Your task to perform on an android device: open app "Google Translate" Image 0: 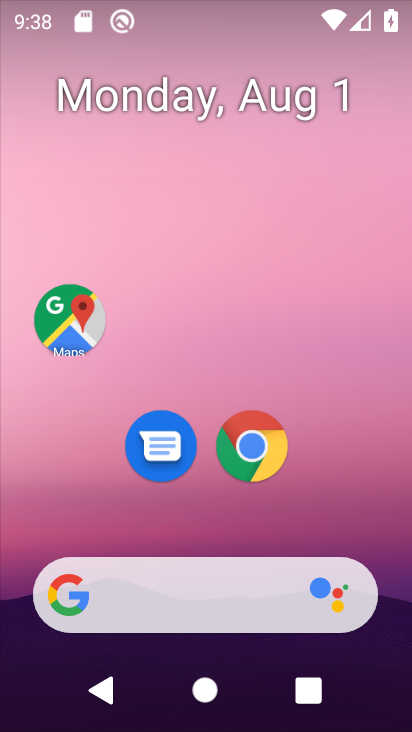
Step 0: drag from (193, 513) to (220, 70)
Your task to perform on an android device: open app "Google Translate" Image 1: 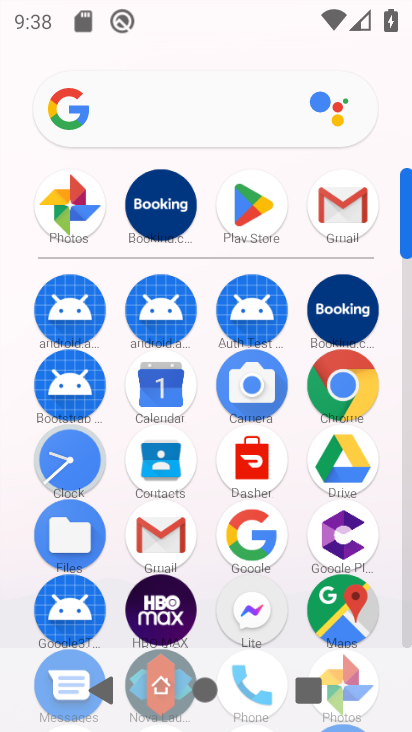
Step 1: click (252, 190)
Your task to perform on an android device: open app "Google Translate" Image 2: 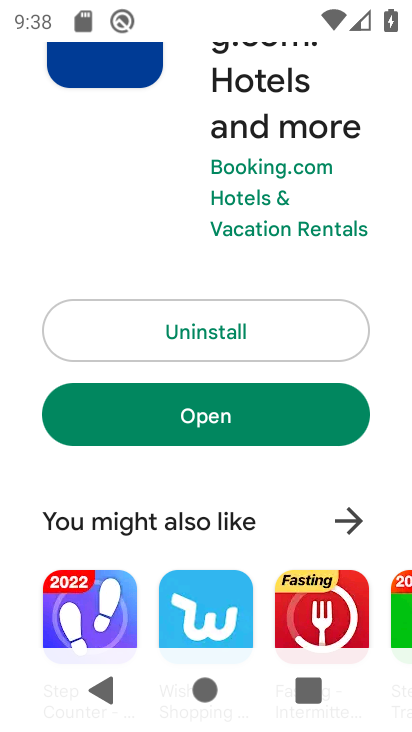
Step 2: drag from (292, 148) to (346, 604)
Your task to perform on an android device: open app "Google Translate" Image 3: 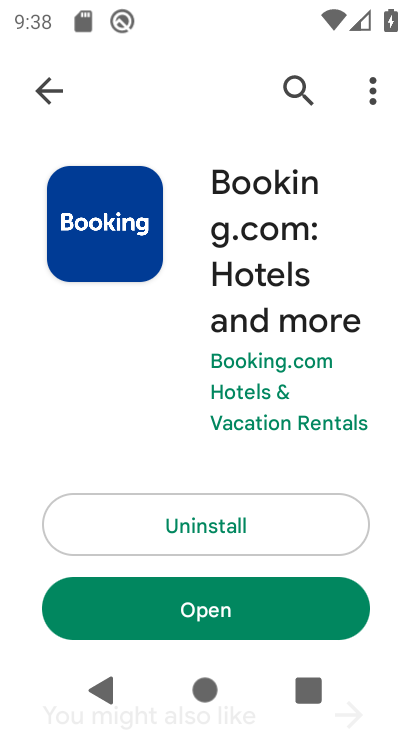
Step 3: click (289, 94)
Your task to perform on an android device: open app "Google Translate" Image 4: 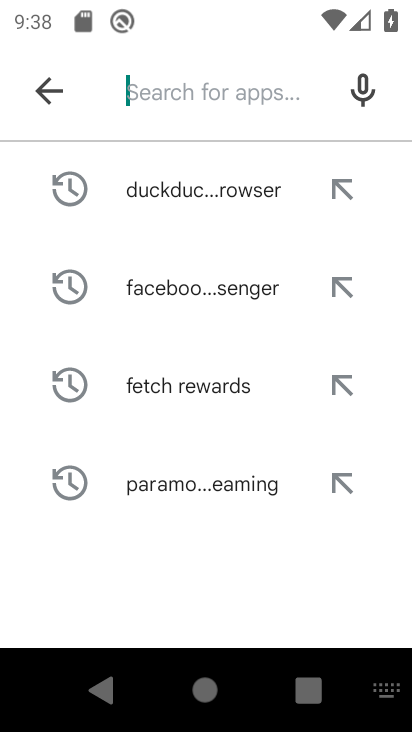
Step 4: type "Google Translate"
Your task to perform on an android device: open app "Google Translate" Image 5: 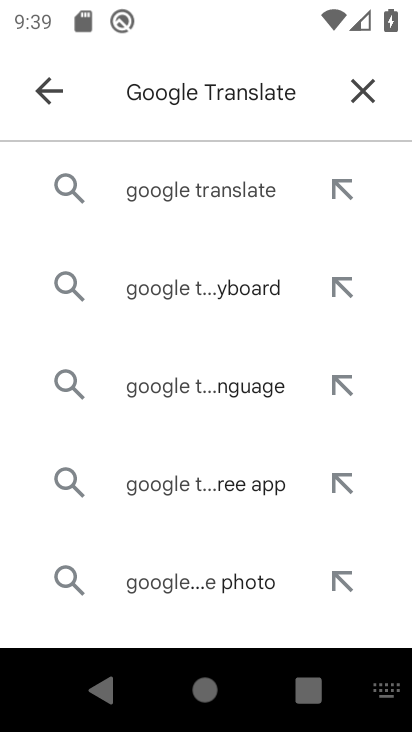
Step 5: click (263, 204)
Your task to perform on an android device: open app "Google Translate" Image 6: 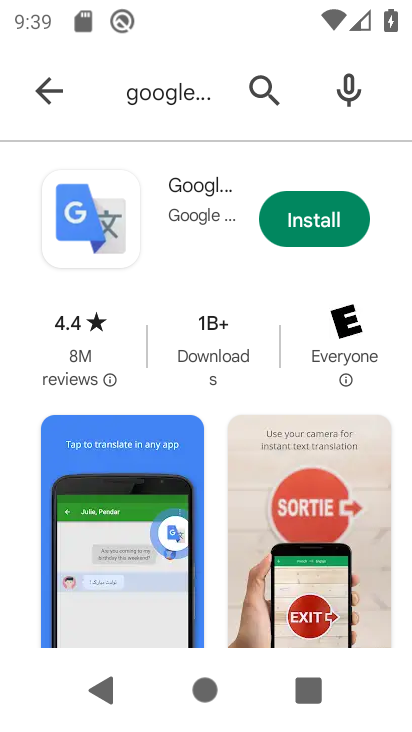
Step 6: task complete